Your task to perform on an android device: turn off notifications settings in the gmail app Image 0: 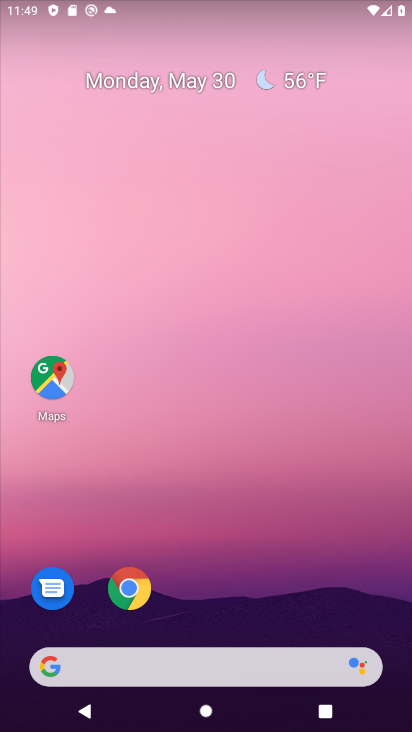
Step 0: drag from (197, 635) to (208, 150)
Your task to perform on an android device: turn off notifications settings in the gmail app Image 1: 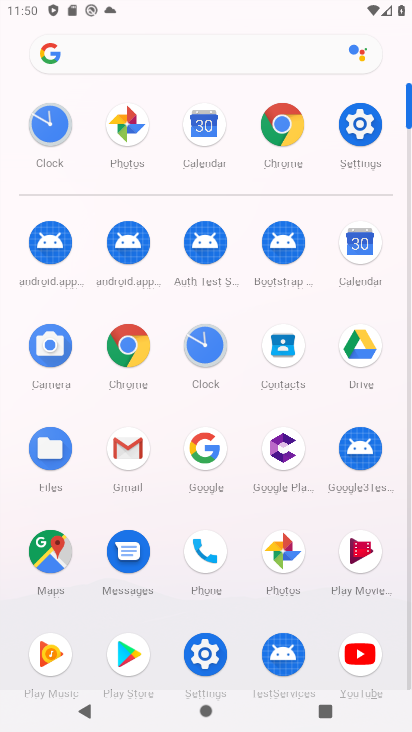
Step 1: click (143, 465)
Your task to perform on an android device: turn off notifications settings in the gmail app Image 2: 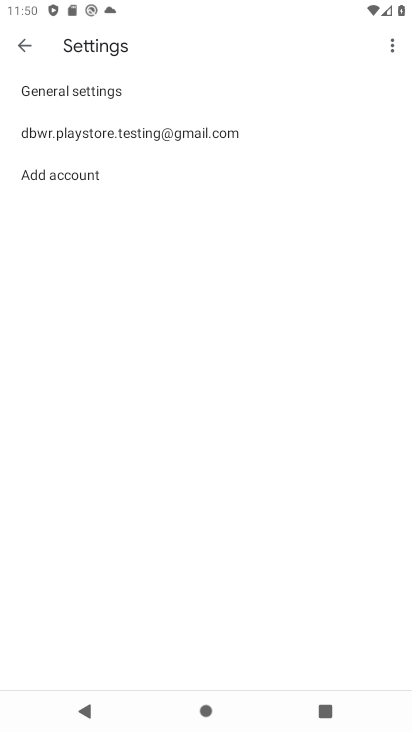
Step 2: click (122, 458)
Your task to perform on an android device: turn off notifications settings in the gmail app Image 3: 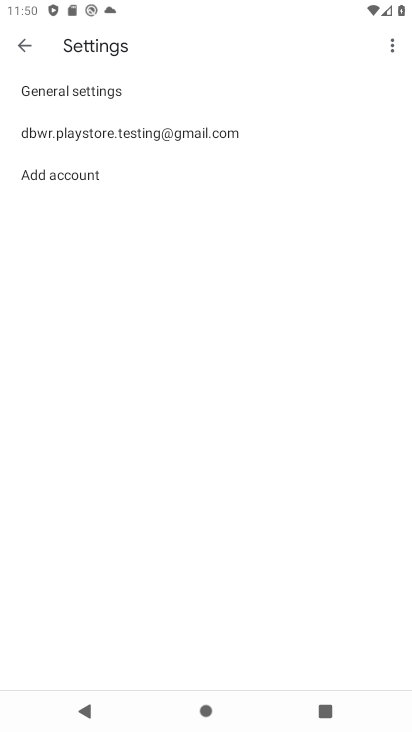
Step 3: click (118, 132)
Your task to perform on an android device: turn off notifications settings in the gmail app Image 4: 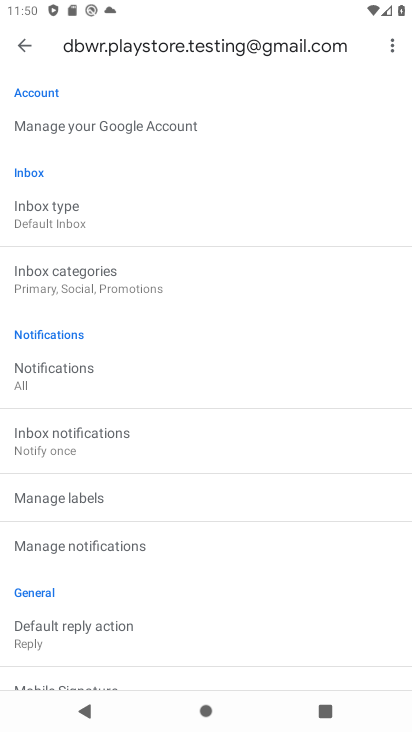
Step 4: click (100, 543)
Your task to perform on an android device: turn off notifications settings in the gmail app Image 5: 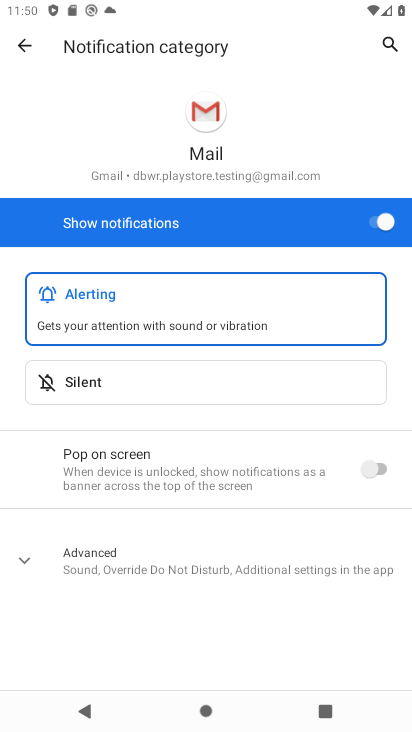
Step 5: click (375, 225)
Your task to perform on an android device: turn off notifications settings in the gmail app Image 6: 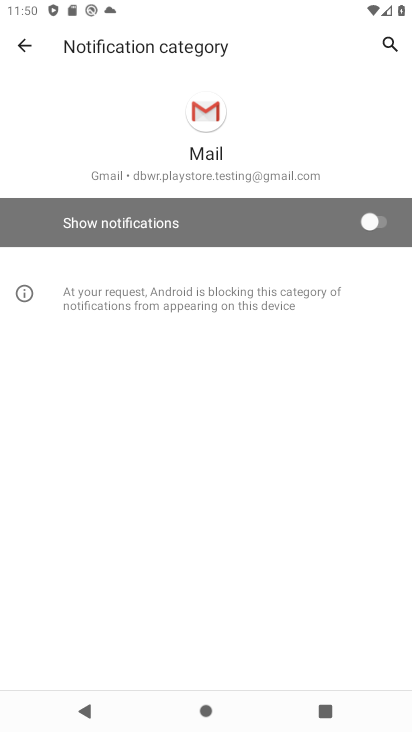
Step 6: task complete